Your task to perform on an android device: clear history in the chrome app Image 0: 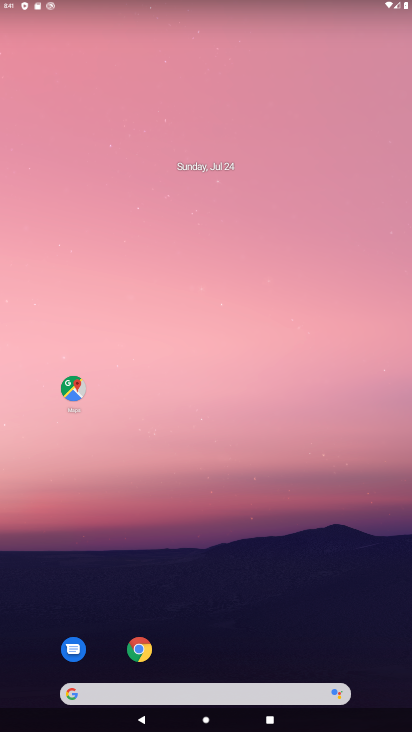
Step 0: click (136, 647)
Your task to perform on an android device: clear history in the chrome app Image 1: 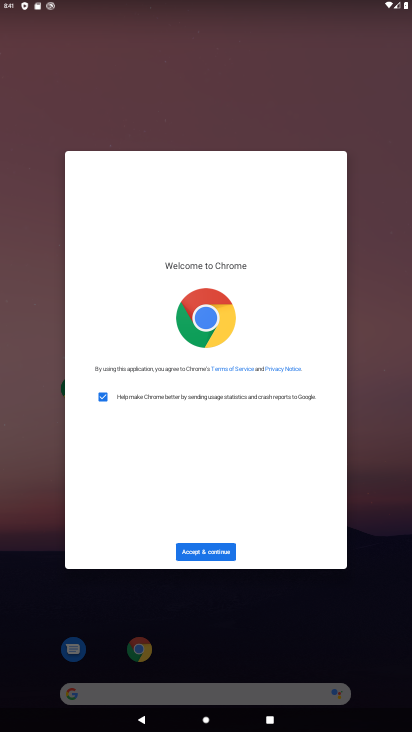
Step 1: click (196, 557)
Your task to perform on an android device: clear history in the chrome app Image 2: 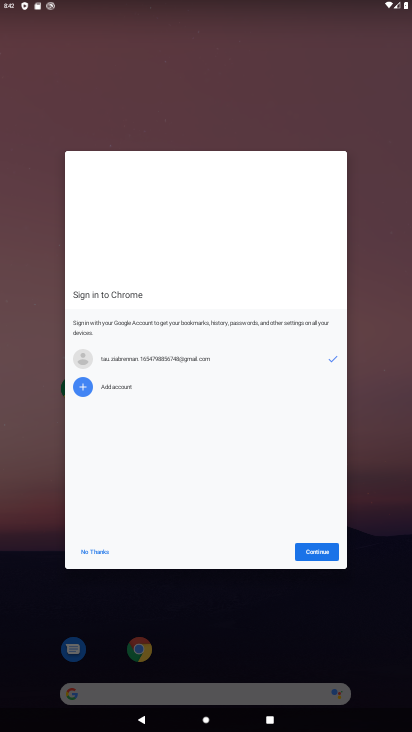
Step 2: click (321, 542)
Your task to perform on an android device: clear history in the chrome app Image 3: 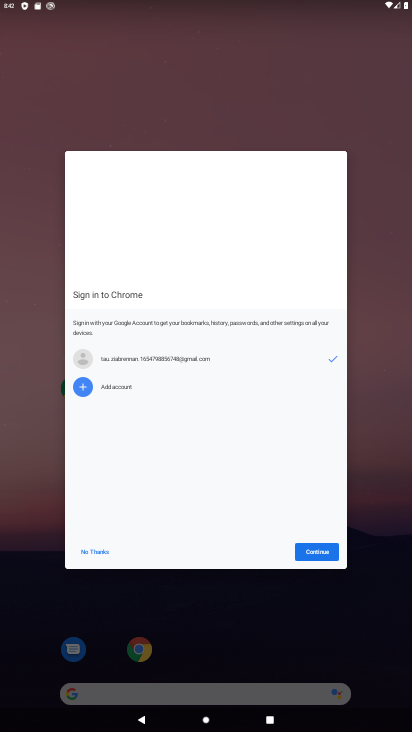
Step 3: click (327, 554)
Your task to perform on an android device: clear history in the chrome app Image 4: 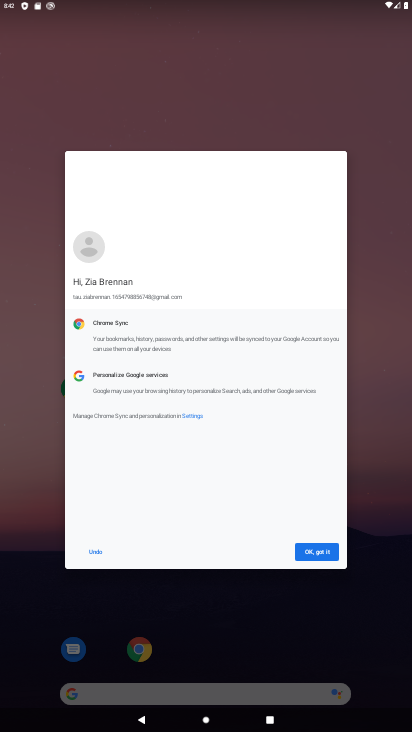
Step 4: click (326, 547)
Your task to perform on an android device: clear history in the chrome app Image 5: 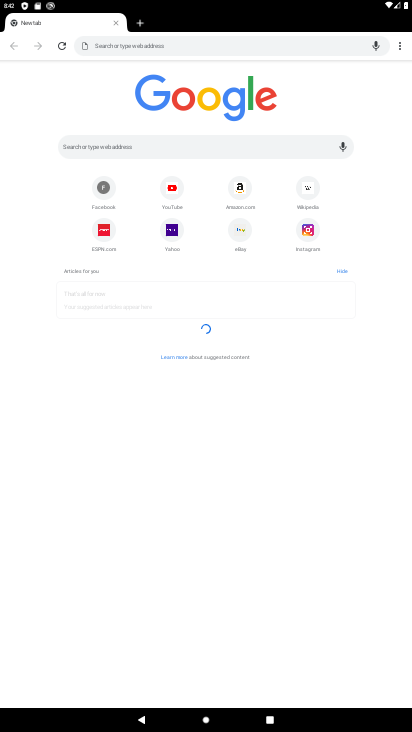
Step 5: click (396, 41)
Your task to perform on an android device: clear history in the chrome app Image 6: 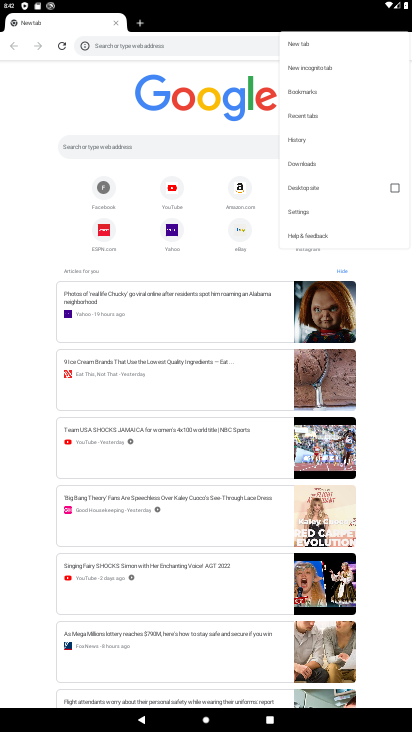
Step 6: click (294, 141)
Your task to perform on an android device: clear history in the chrome app Image 7: 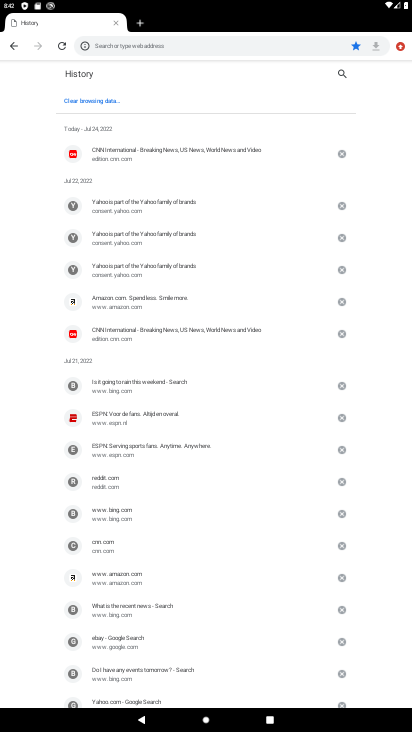
Step 7: click (81, 97)
Your task to perform on an android device: clear history in the chrome app Image 8: 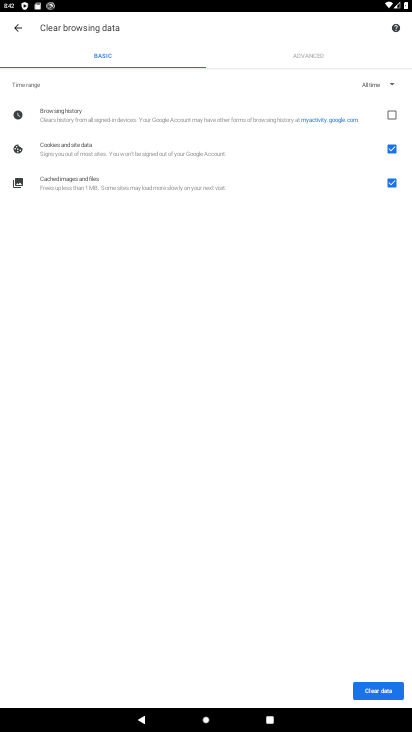
Step 8: click (394, 111)
Your task to perform on an android device: clear history in the chrome app Image 9: 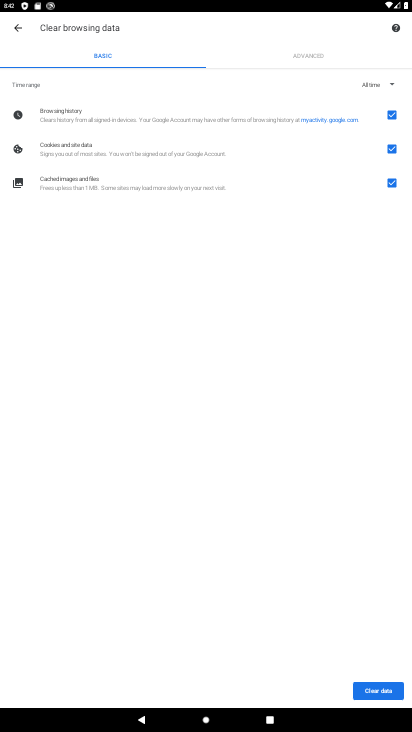
Step 9: click (385, 145)
Your task to perform on an android device: clear history in the chrome app Image 10: 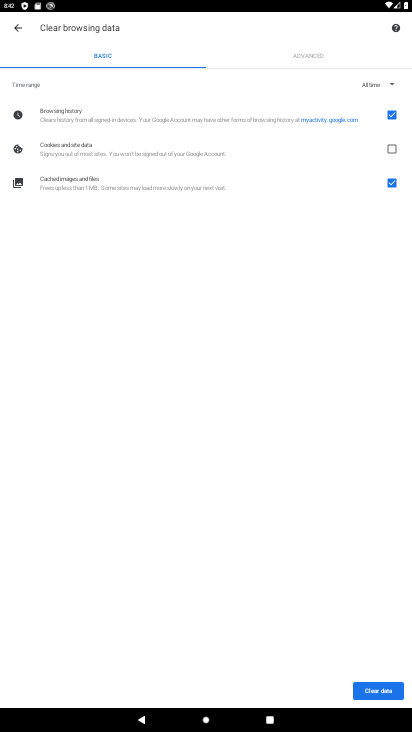
Step 10: click (389, 181)
Your task to perform on an android device: clear history in the chrome app Image 11: 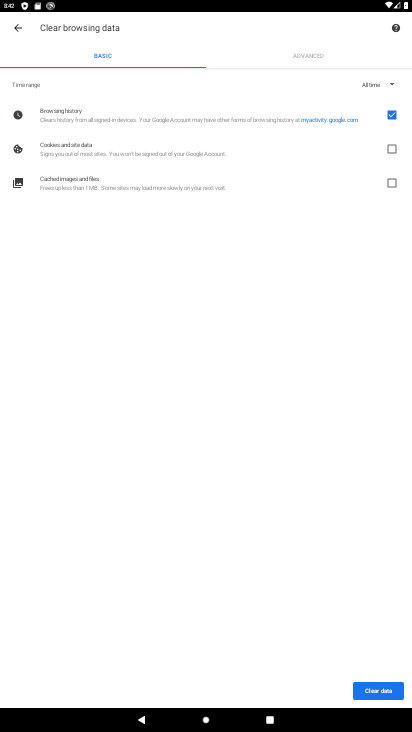
Step 11: click (389, 682)
Your task to perform on an android device: clear history in the chrome app Image 12: 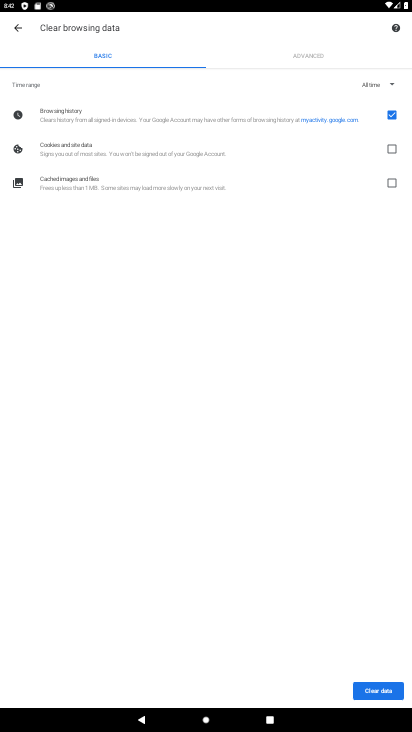
Step 12: click (355, 686)
Your task to perform on an android device: clear history in the chrome app Image 13: 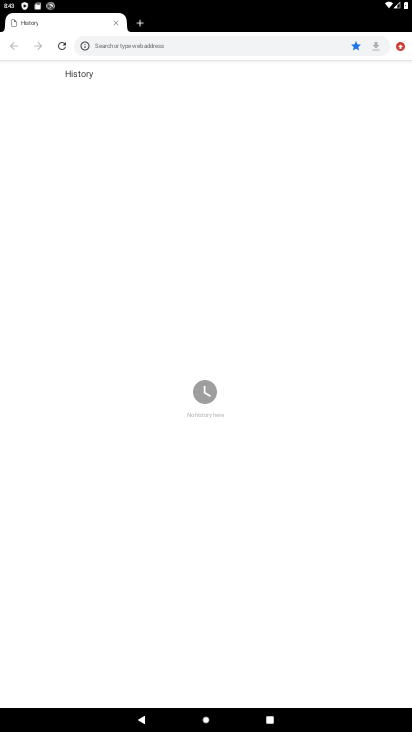
Step 13: task complete